Your task to perform on an android device: Open Google Maps and go to "Timeline" Image 0: 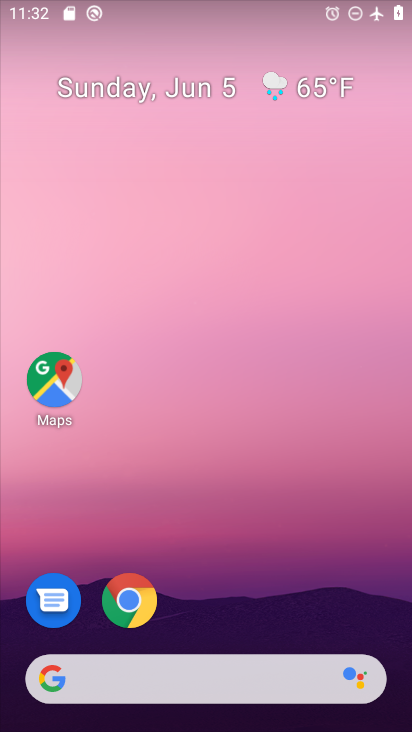
Step 0: drag from (369, 611) to (291, 28)
Your task to perform on an android device: Open Google Maps and go to "Timeline" Image 1: 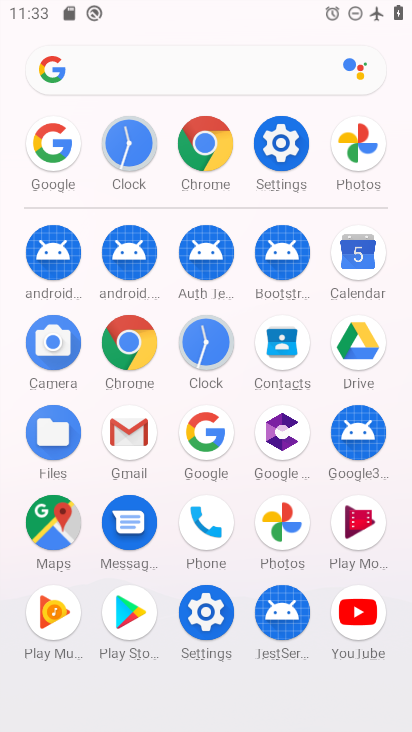
Step 1: click (45, 506)
Your task to perform on an android device: Open Google Maps and go to "Timeline" Image 2: 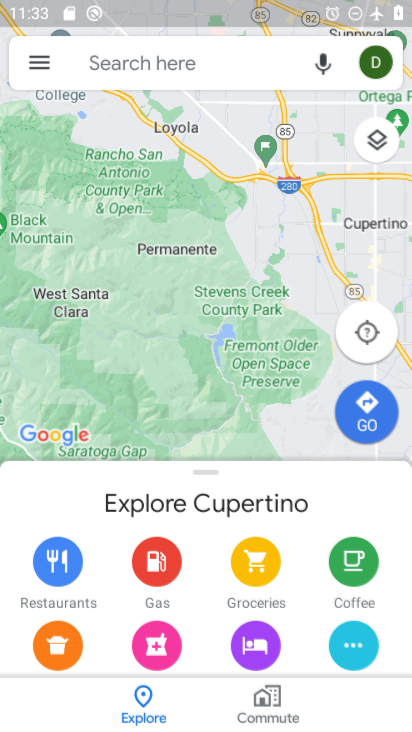
Step 2: click (39, 61)
Your task to perform on an android device: Open Google Maps and go to "Timeline" Image 3: 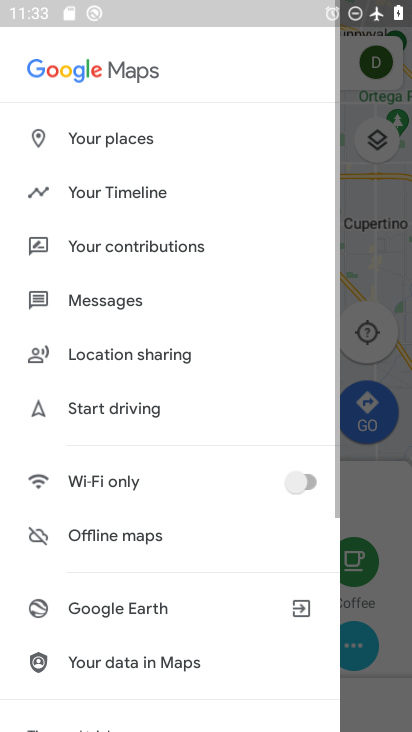
Step 3: click (145, 204)
Your task to perform on an android device: Open Google Maps and go to "Timeline" Image 4: 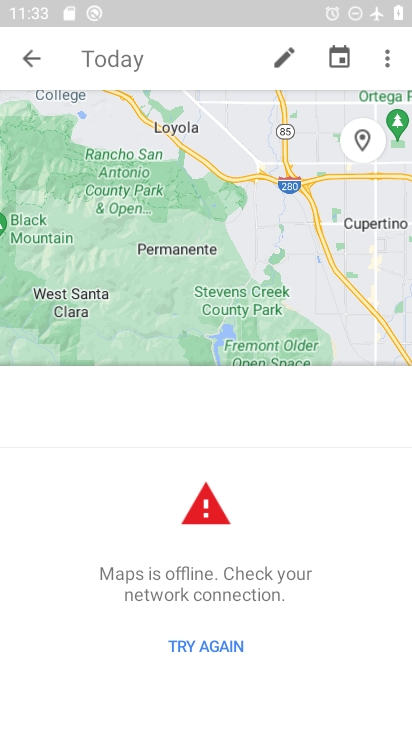
Step 4: task complete